Your task to perform on an android device: Is it going to rain this weekend? Image 0: 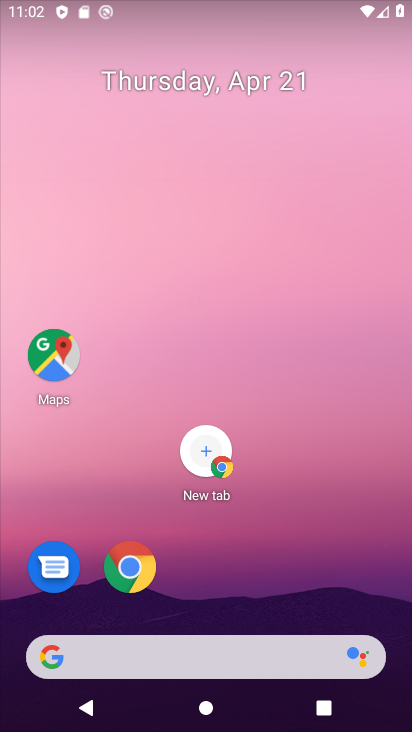
Step 0: click (193, 647)
Your task to perform on an android device: Is it going to rain this weekend? Image 1: 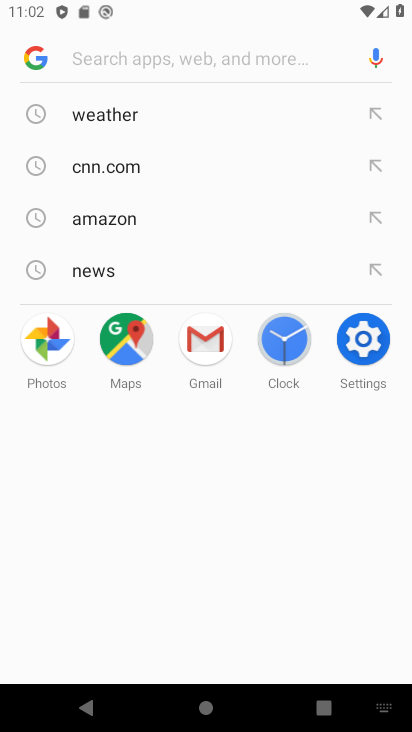
Step 1: click (122, 124)
Your task to perform on an android device: Is it going to rain this weekend? Image 2: 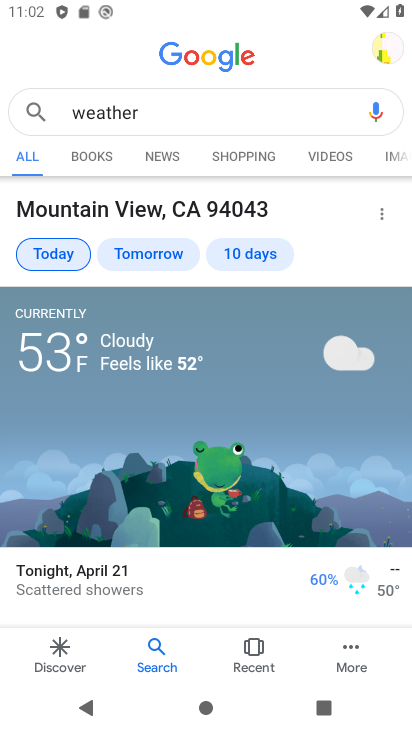
Step 2: click (257, 255)
Your task to perform on an android device: Is it going to rain this weekend? Image 3: 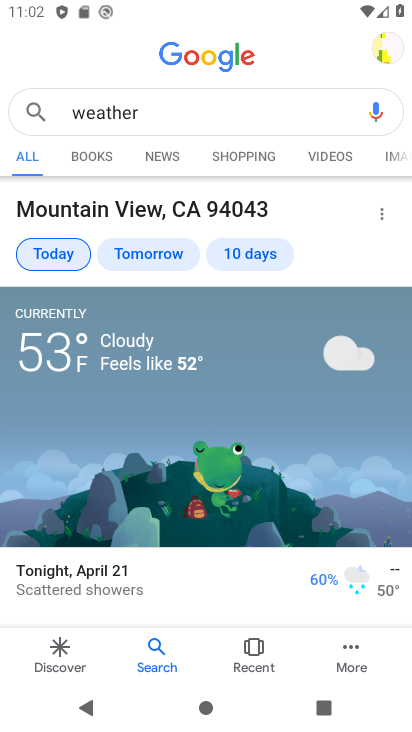
Step 3: click (257, 255)
Your task to perform on an android device: Is it going to rain this weekend? Image 4: 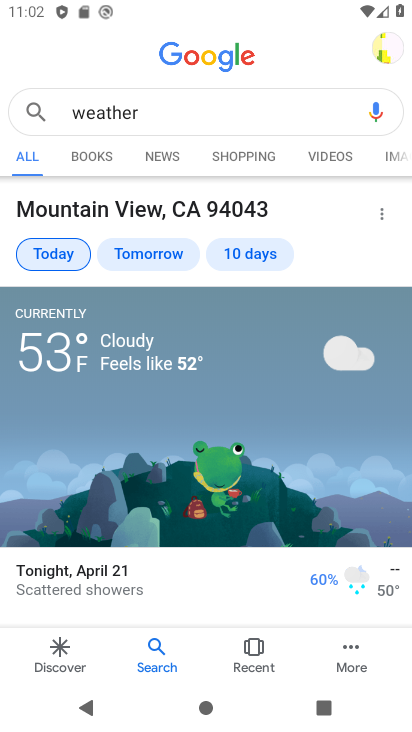
Step 4: click (257, 255)
Your task to perform on an android device: Is it going to rain this weekend? Image 5: 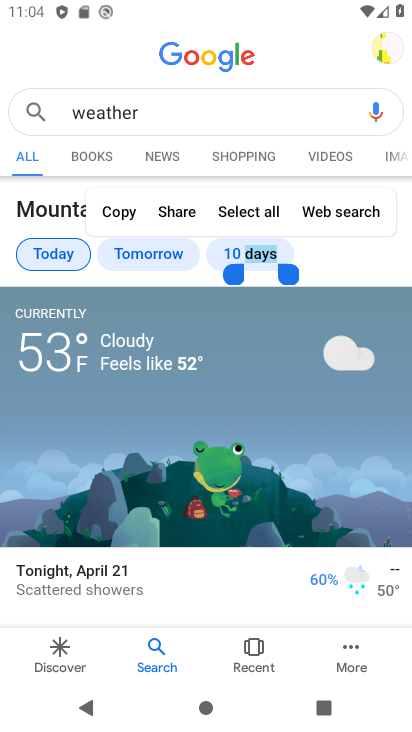
Step 5: task complete